Your task to perform on an android device: check battery use Image 0: 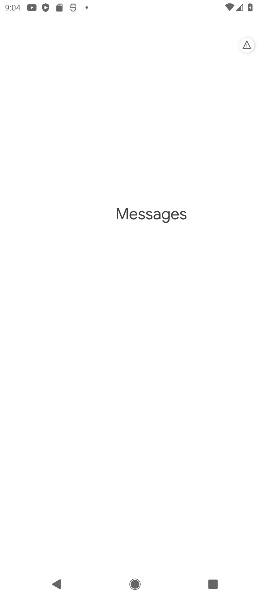
Step 0: click (193, 181)
Your task to perform on an android device: check battery use Image 1: 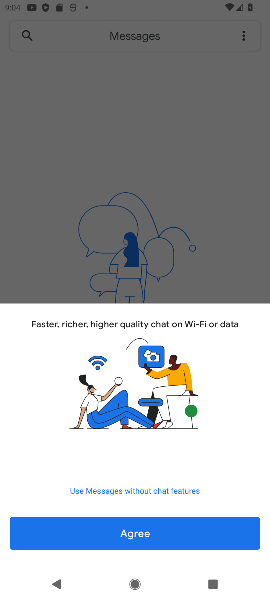
Step 1: press home button
Your task to perform on an android device: check battery use Image 2: 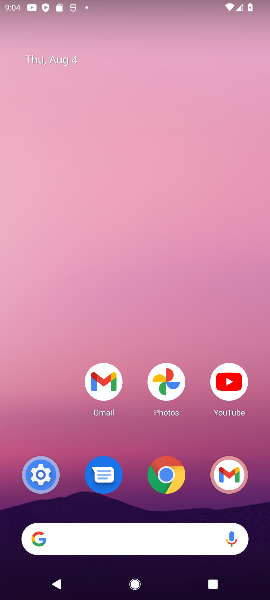
Step 2: drag from (133, 507) to (134, 138)
Your task to perform on an android device: check battery use Image 3: 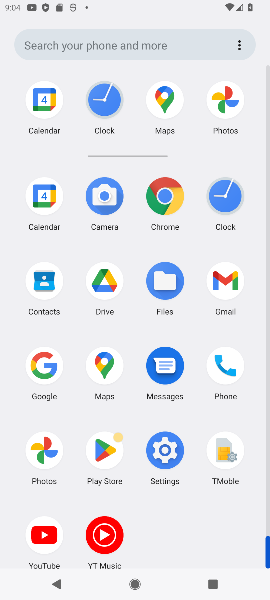
Step 3: click (163, 448)
Your task to perform on an android device: check battery use Image 4: 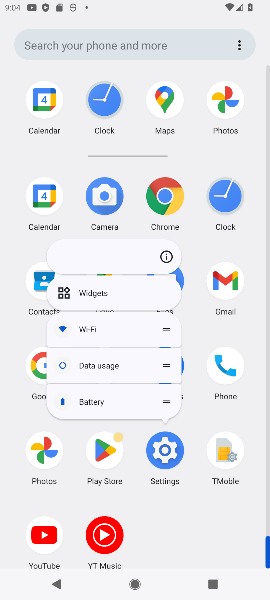
Step 4: click (165, 262)
Your task to perform on an android device: check battery use Image 5: 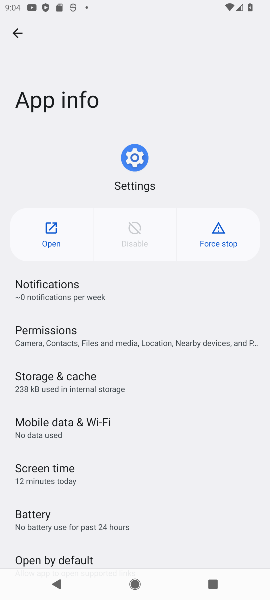
Step 5: click (42, 236)
Your task to perform on an android device: check battery use Image 6: 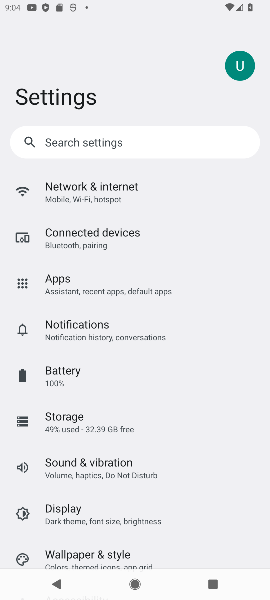
Step 6: drag from (129, 403) to (132, 205)
Your task to perform on an android device: check battery use Image 7: 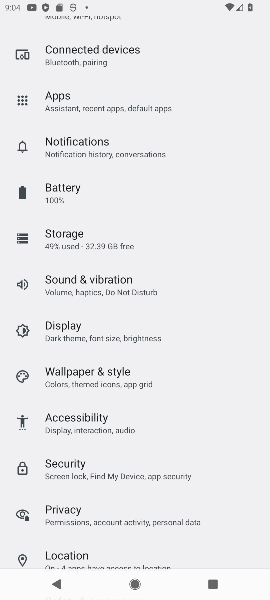
Step 7: click (127, 196)
Your task to perform on an android device: check battery use Image 8: 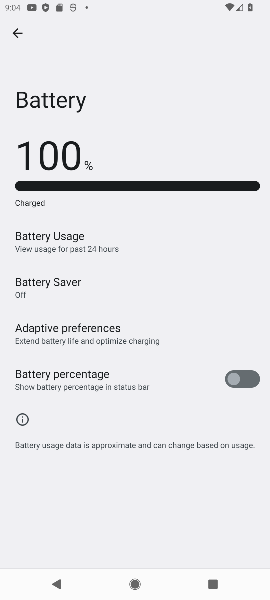
Step 8: drag from (140, 387) to (128, 152)
Your task to perform on an android device: check battery use Image 9: 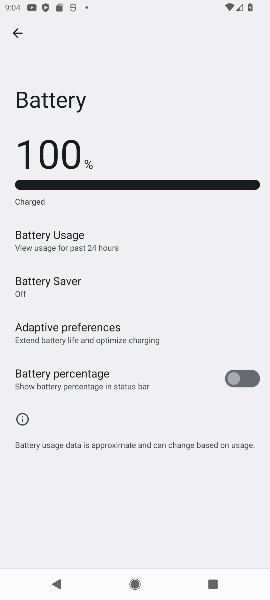
Step 9: drag from (128, 152) to (167, 387)
Your task to perform on an android device: check battery use Image 10: 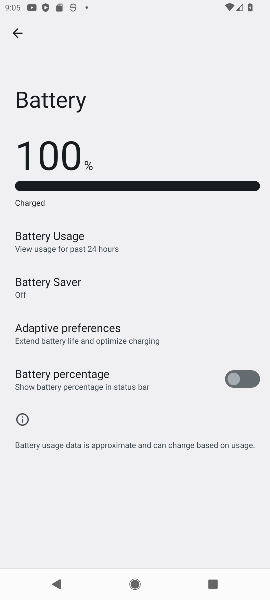
Step 10: click (87, 245)
Your task to perform on an android device: check battery use Image 11: 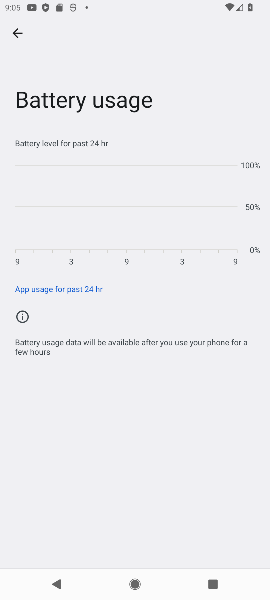
Step 11: task complete